Your task to perform on an android device: turn notification dots off Image 0: 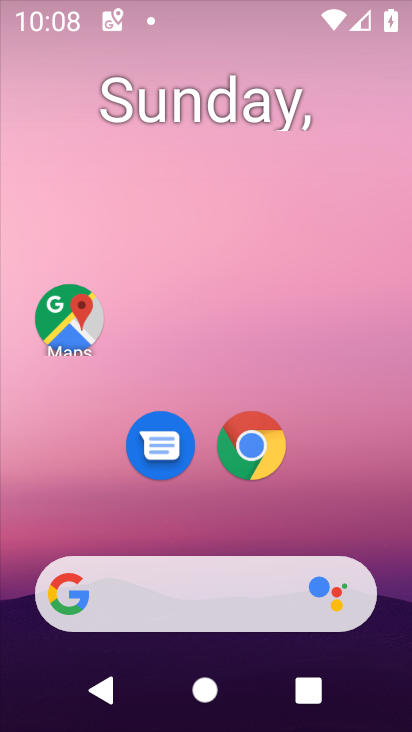
Step 0: press home button
Your task to perform on an android device: turn notification dots off Image 1: 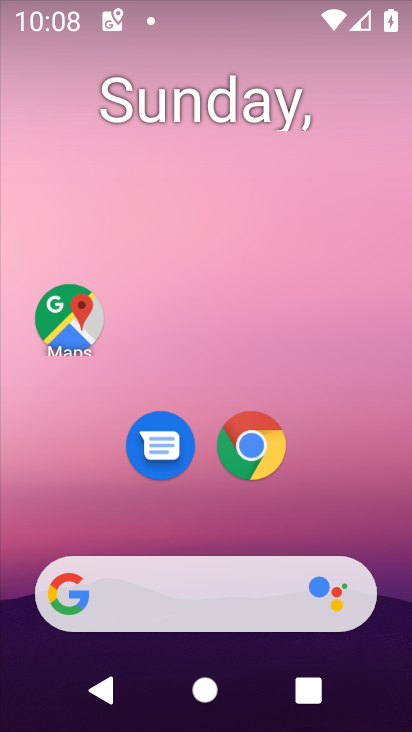
Step 1: drag from (345, 530) to (273, 77)
Your task to perform on an android device: turn notification dots off Image 2: 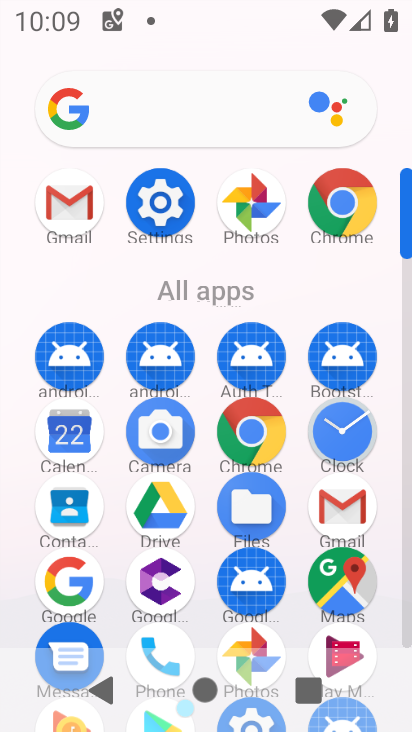
Step 2: click (167, 209)
Your task to perform on an android device: turn notification dots off Image 3: 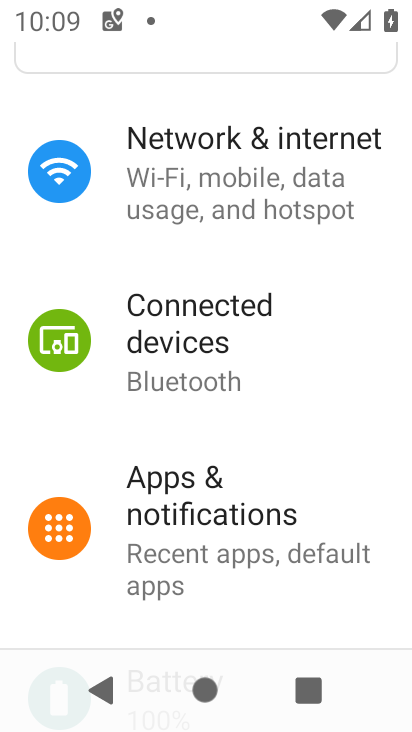
Step 3: drag from (325, 486) to (242, 231)
Your task to perform on an android device: turn notification dots off Image 4: 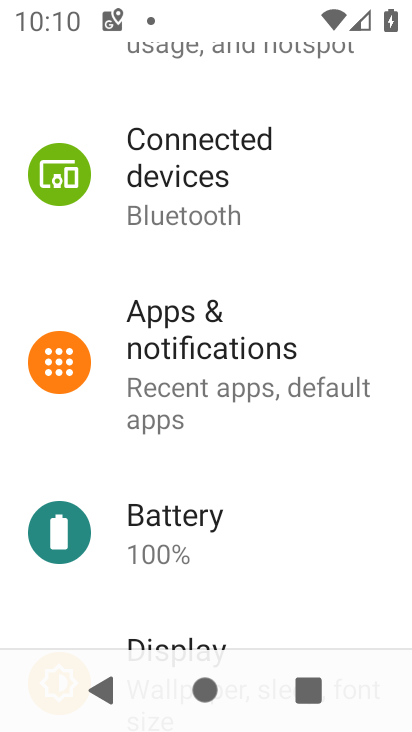
Step 4: drag from (243, 201) to (285, 474)
Your task to perform on an android device: turn notification dots off Image 5: 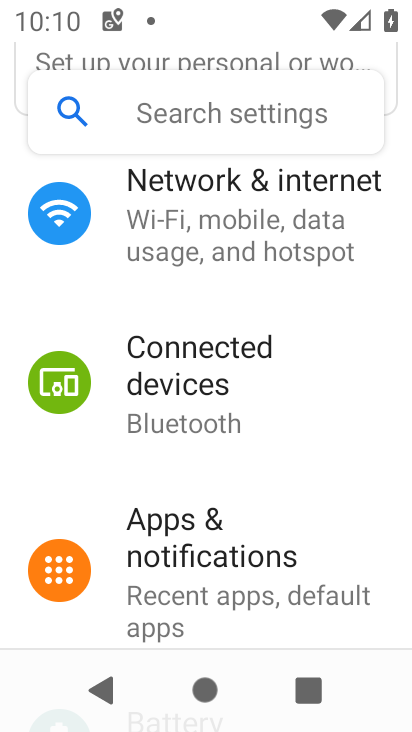
Step 5: click (166, 614)
Your task to perform on an android device: turn notification dots off Image 6: 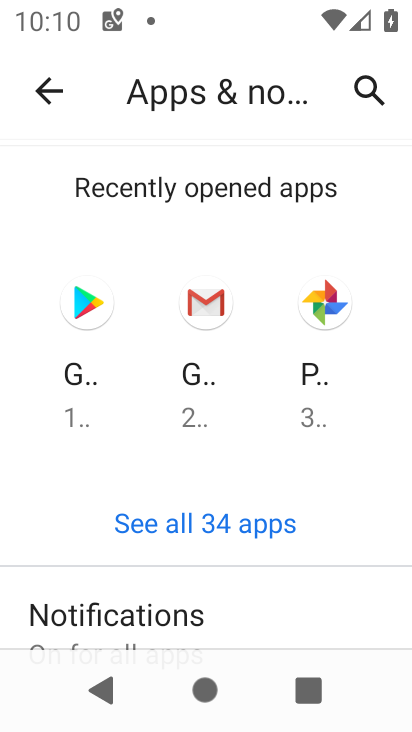
Step 6: drag from (342, 606) to (295, 394)
Your task to perform on an android device: turn notification dots off Image 7: 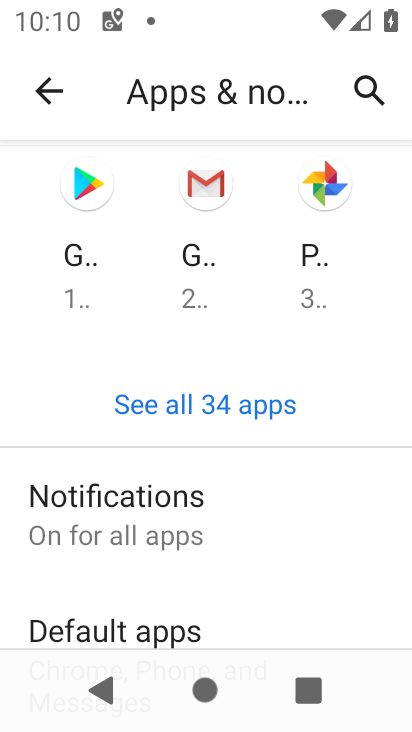
Step 7: click (185, 508)
Your task to perform on an android device: turn notification dots off Image 8: 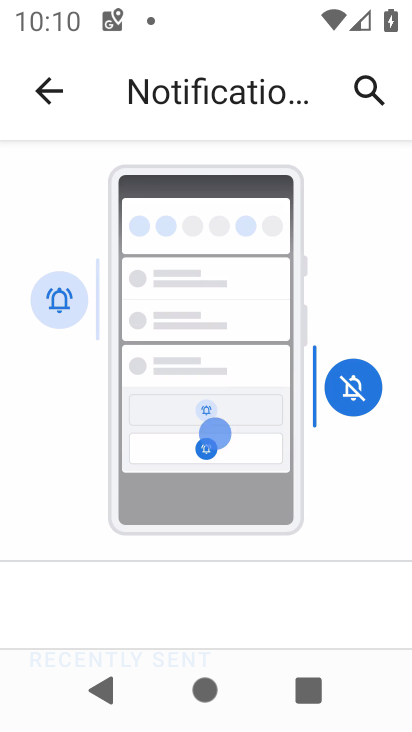
Step 8: drag from (180, 598) to (171, 340)
Your task to perform on an android device: turn notification dots off Image 9: 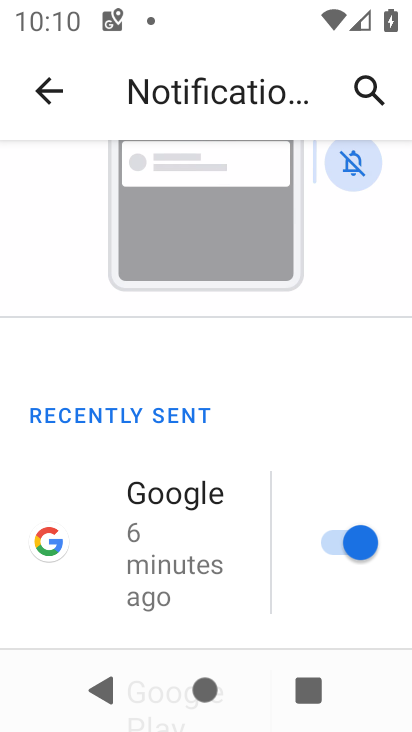
Step 9: drag from (194, 607) to (150, 119)
Your task to perform on an android device: turn notification dots off Image 10: 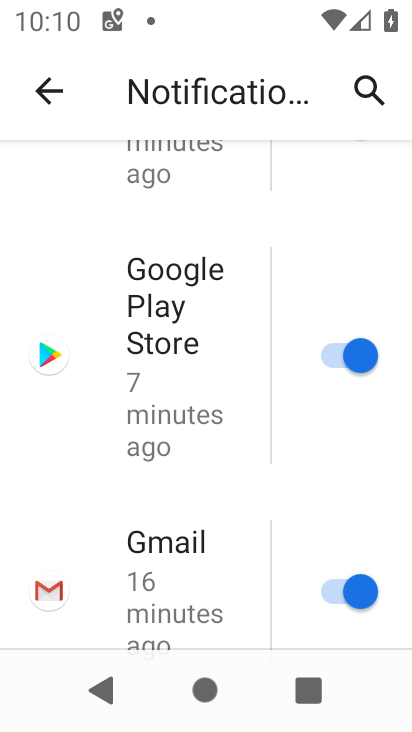
Step 10: drag from (258, 530) to (192, 169)
Your task to perform on an android device: turn notification dots off Image 11: 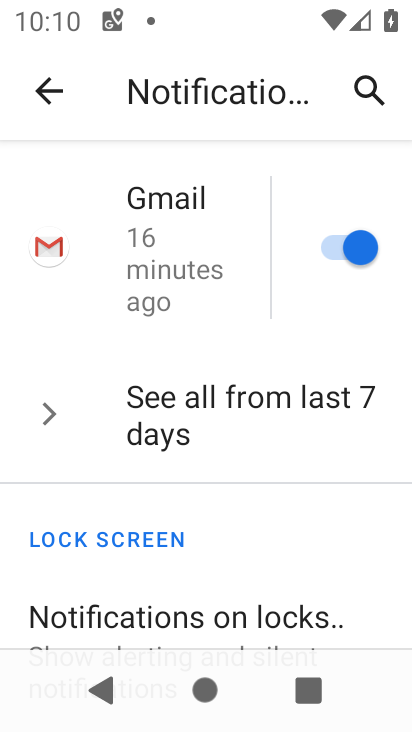
Step 11: drag from (252, 488) to (242, 275)
Your task to perform on an android device: turn notification dots off Image 12: 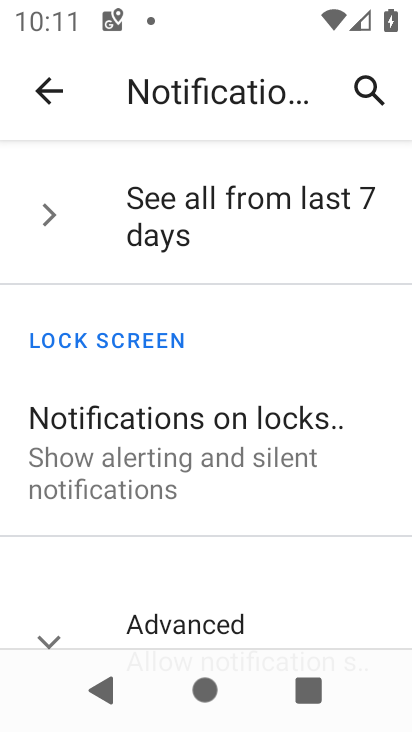
Step 12: drag from (317, 366) to (152, 233)
Your task to perform on an android device: turn notification dots off Image 13: 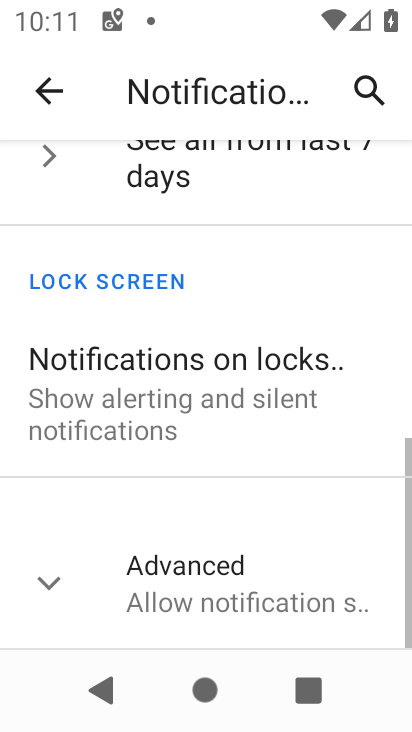
Step 13: drag from (234, 448) to (250, 113)
Your task to perform on an android device: turn notification dots off Image 14: 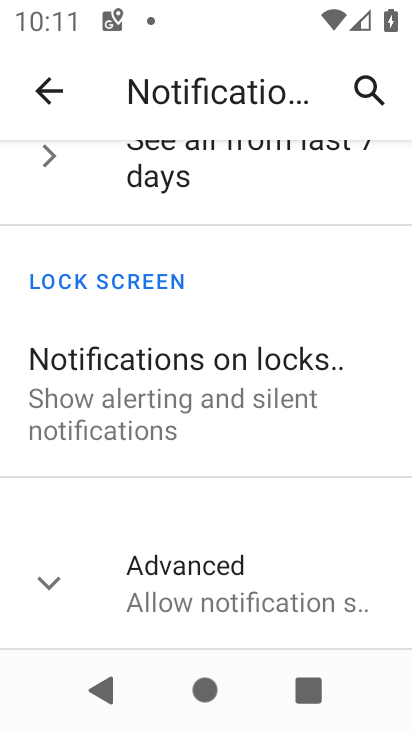
Step 14: click (222, 595)
Your task to perform on an android device: turn notification dots off Image 15: 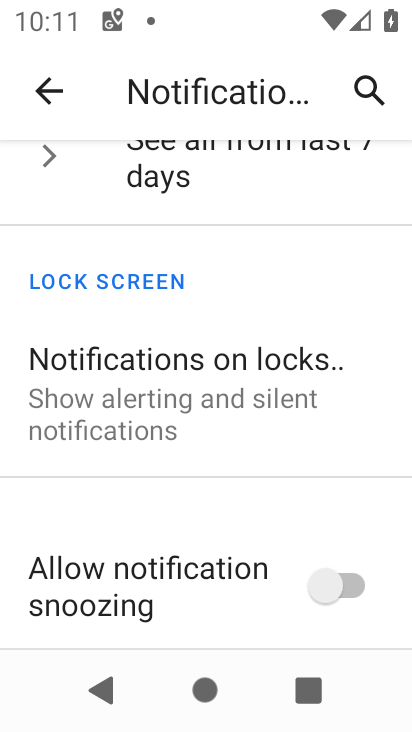
Step 15: drag from (207, 448) to (262, 192)
Your task to perform on an android device: turn notification dots off Image 16: 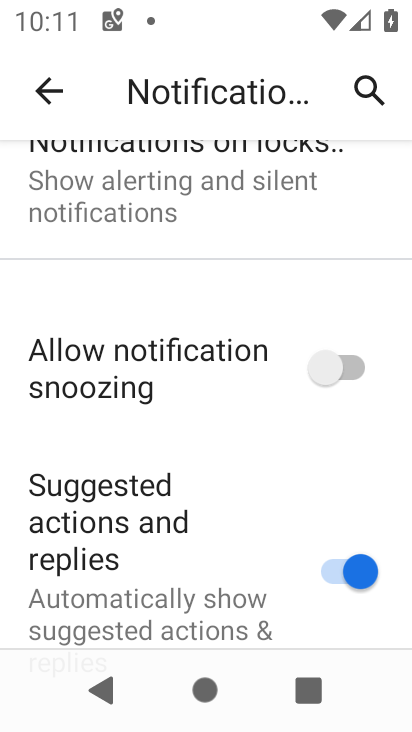
Step 16: drag from (247, 543) to (201, 260)
Your task to perform on an android device: turn notification dots off Image 17: 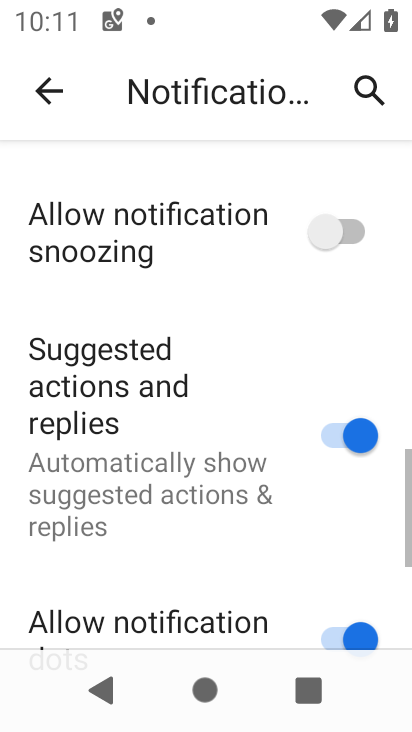
Step 17: drag from (161, 588) to (172, 323)
Your task to perform on an android device: turn notification dots off Image 18: 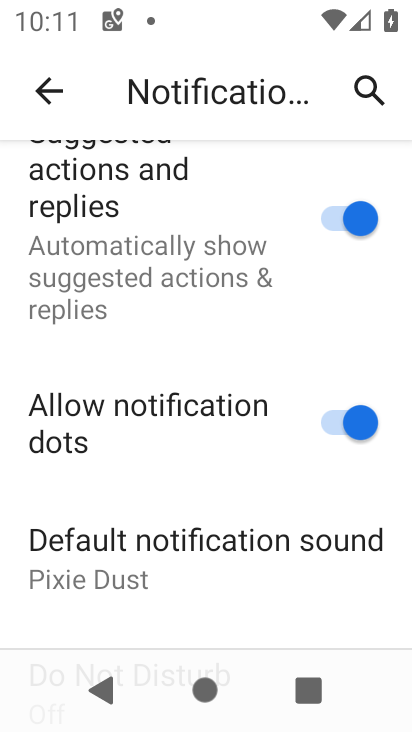
Step 18: click (363, 438)
Your task to perform on an android device: turn notification dots off Image 19: 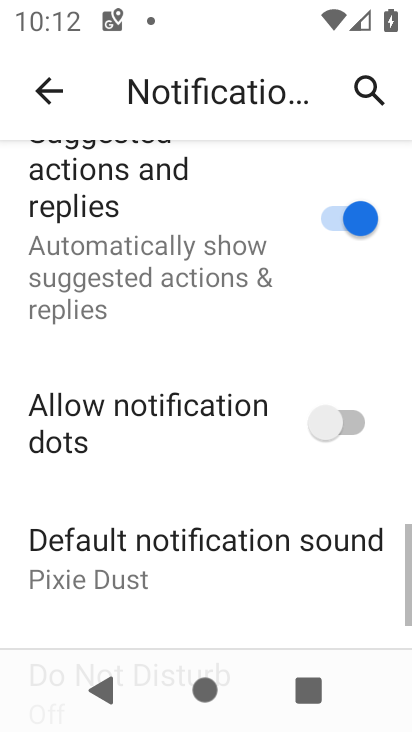
Step 19: task complete